Your task to perform on an android device: set the stopwatch Image 0: 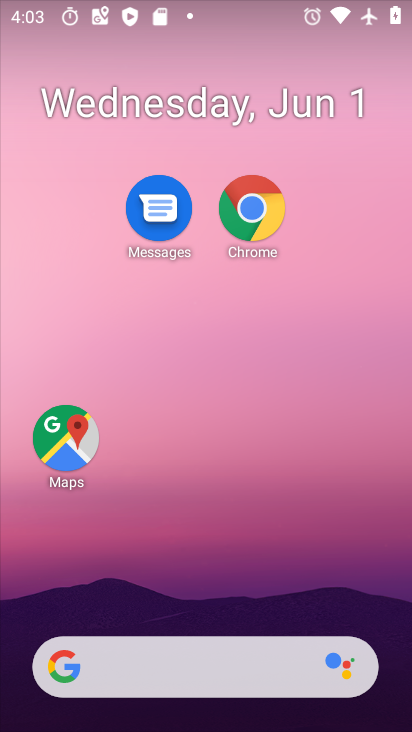
Step 0: drag from (210, 586) to (208, 283)
Your task to perform on an android device: set the stopwatch Image 1: 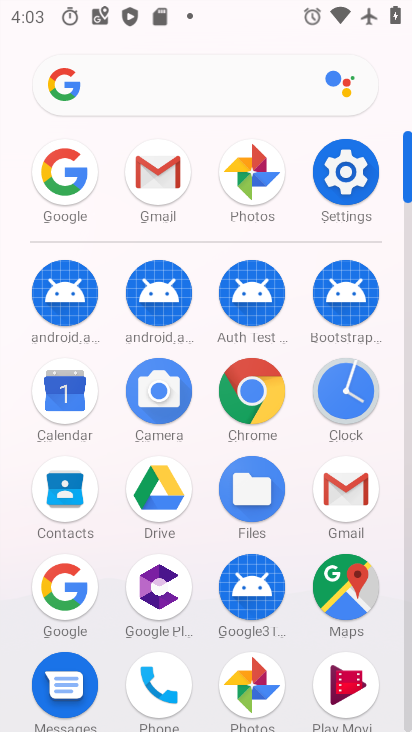
Step 1: click (323, 404)
Your task to perform on an android device: set the stopwatch Image 2: 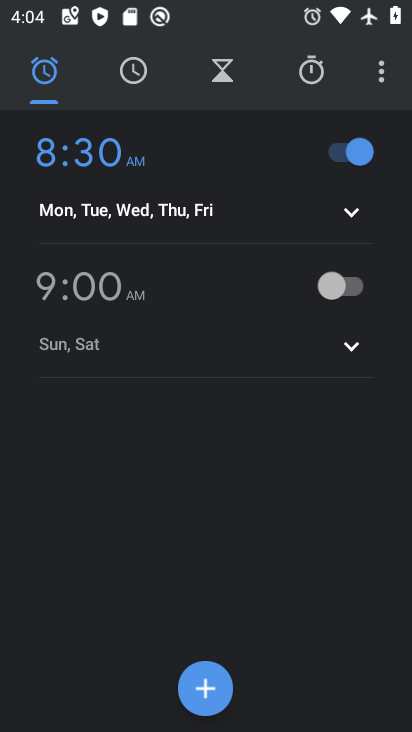
Step 2: click (308, 79)
Your task to perform on an android device: set the stopwatch Image 3: 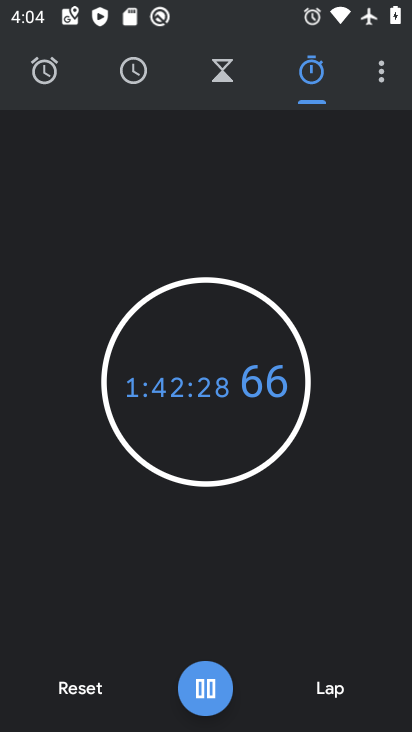
Step 3: task complete